Your task to perform on an android device: toggle pop-ups in chrome Image 0: 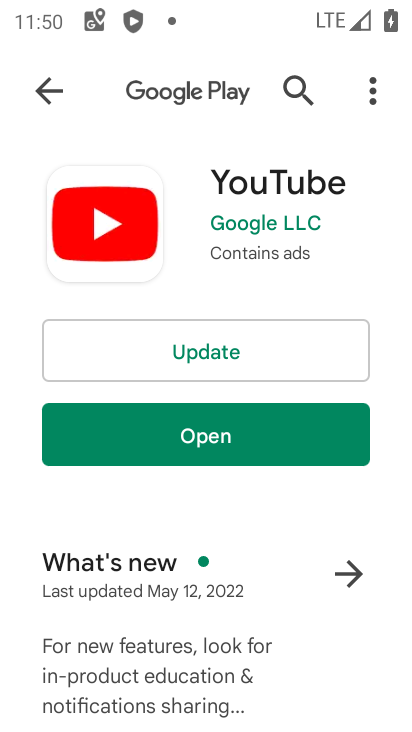
Step 0: press home button
Your task to perform on an android device: toggle pop-ups in chrome Image 1: 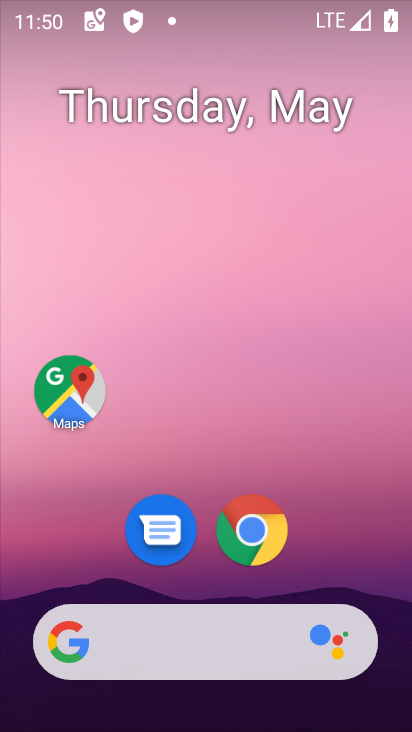
Step 1: click (250, 537)
Your task to perform on an android device: toggle pop-ups in chrome Image 2: 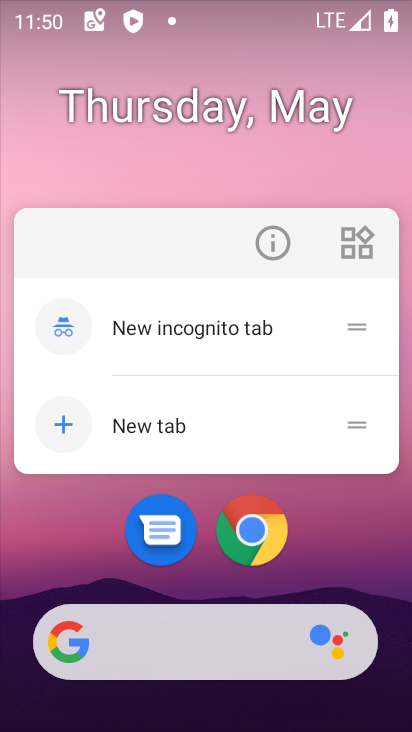
Step 2: click (250, 537)
Your task to perform on an android device: toggle pop-ups in chrome Image 3: 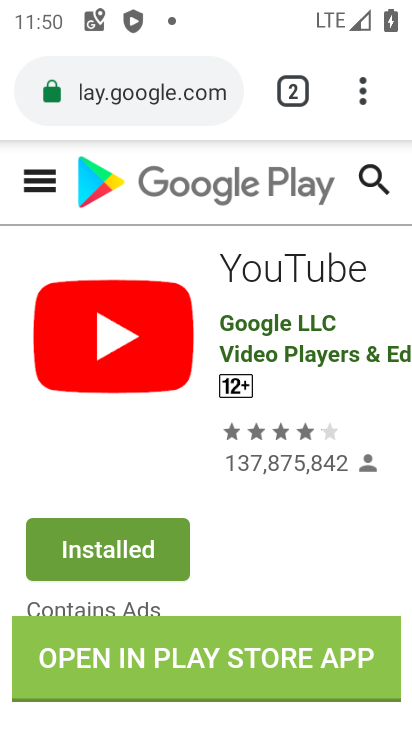
Step 3: click (364, 94)
Your task to perform on an android device: toggle pop-ups in chrome Image 4: 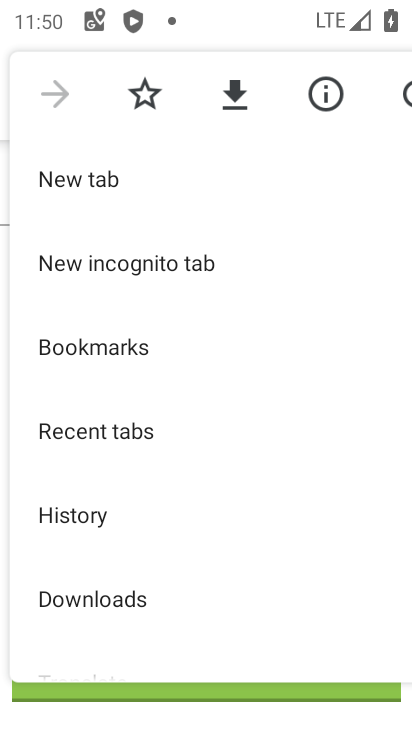
Step 4: drag from (156, 601) to (156, 154)
Your task to perform on an android device: toggle pop-ups in chrome Image 5: 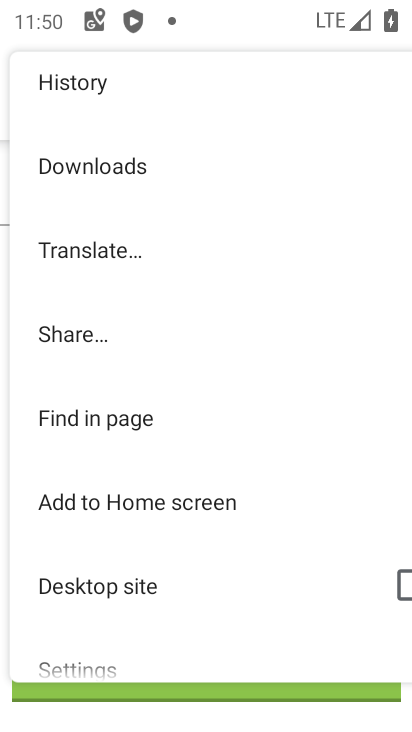
Step 5: drag from (143, 607) to (279, 158)
Your task to perform on an android device: toggle pop-ups in chrome Image 6: 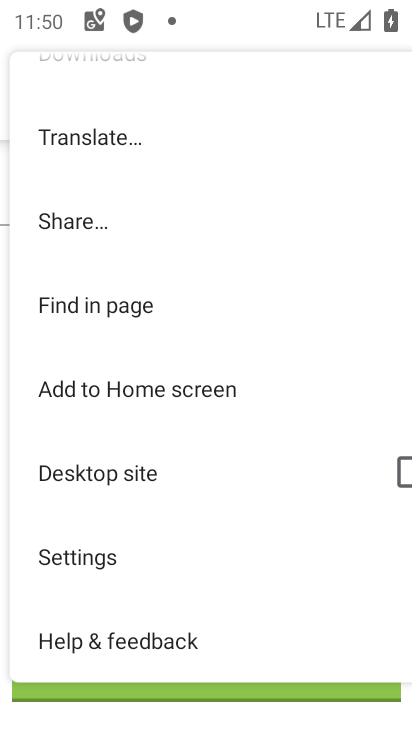
Step 6: click (86, 560)
Your task to perform on an android device: toggle pop-ups in chrome Image 7: 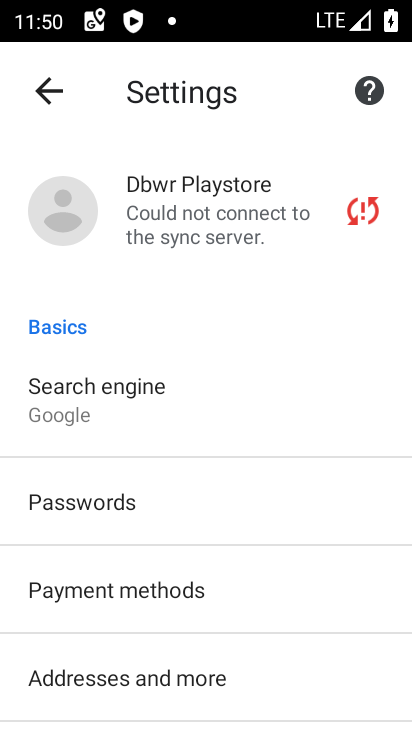
Step 7: drag from (289, 676) to (317, 153)
Your task to perform on an android device: toggle pop-ups in chrome Image 8: 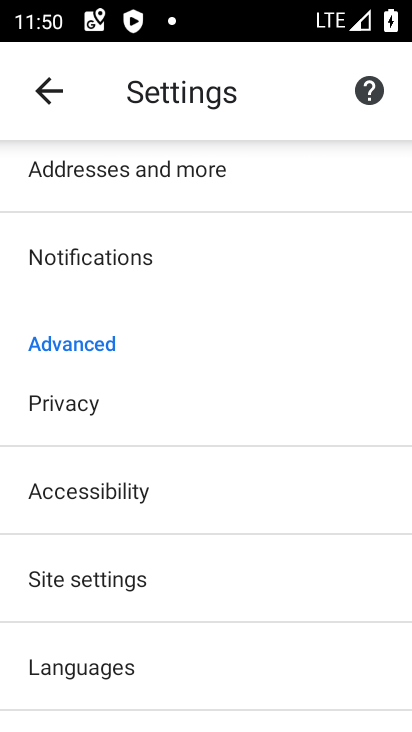
Step 8: click (110, 569)
Your task to perform on an android device: toggle pop-ups in chrome Image 9: 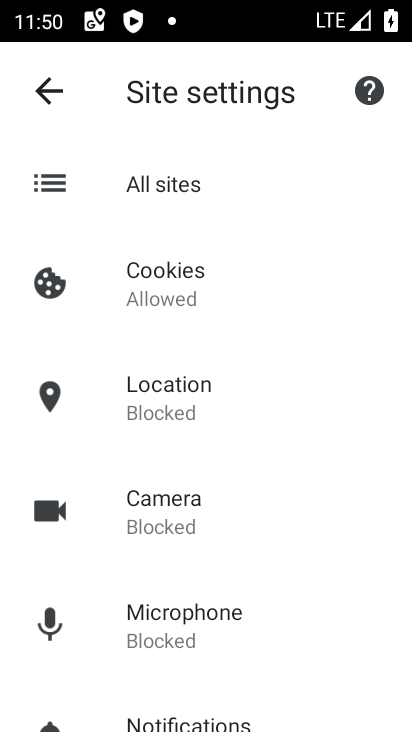
Step 9: drag from (270, 608) to (269, 133)
Your task to perform on an android device: toggle pop-ups in chrome Image 10: 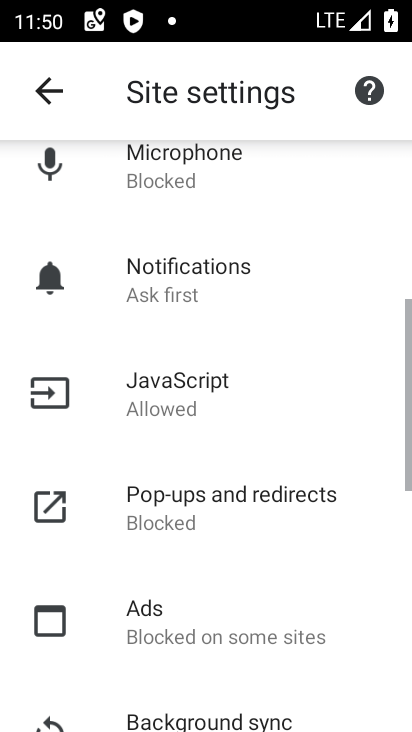
Step 10: click (213, 504)
Your task to perform on an android device: toggle pop-ups in chrome Image 11: 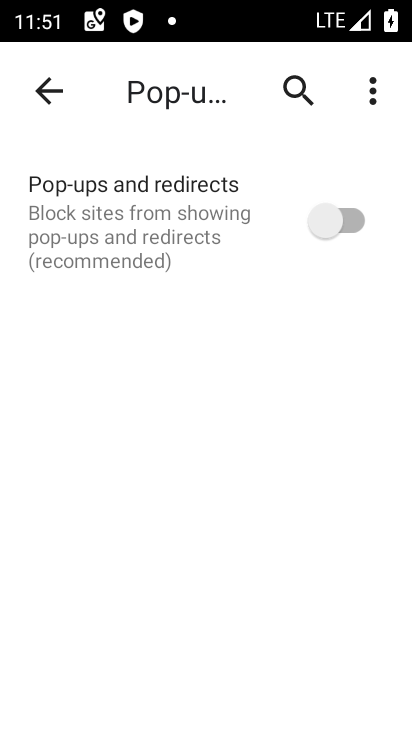
Step 11: click (334, 210)
Your task to perform on an android device: toggle pop-ups in chrome Image 12: 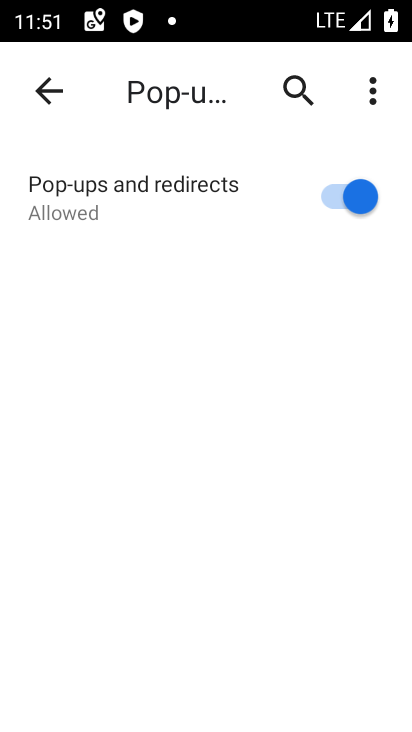
Step 12: task complete